Your task to perform on an android device: delete the emails in spam in the gmail app Image 0: 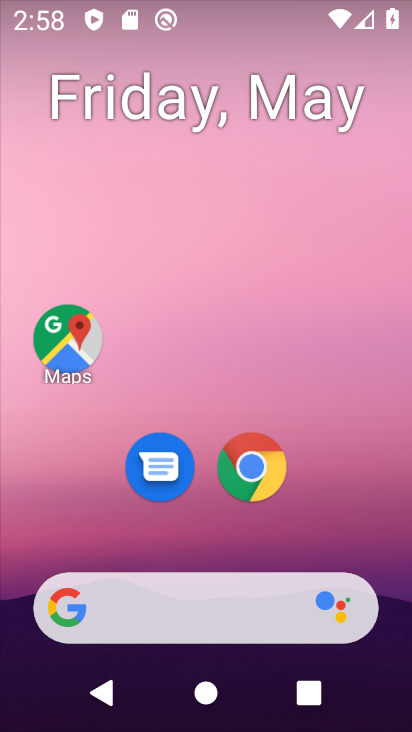
Step 0: drag from (324, 490) to (367, 5)
Your task to perform on an android device: delete the emails in spam in the gmail app Image 1: 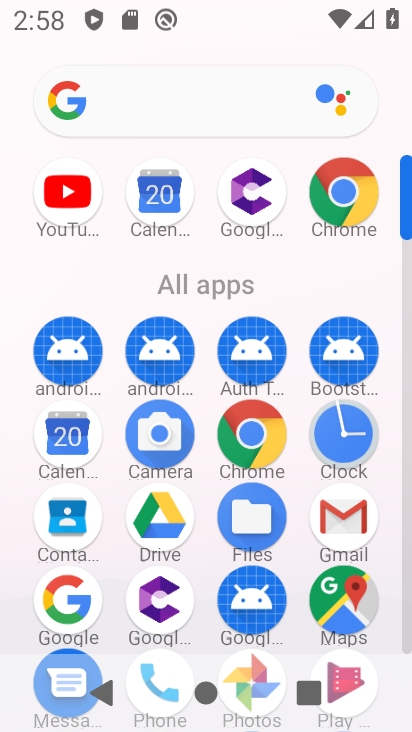
Step 1: click (362, 521)
Your task to perform on an android device: delete the emails in spam in the gmail app Image 2: 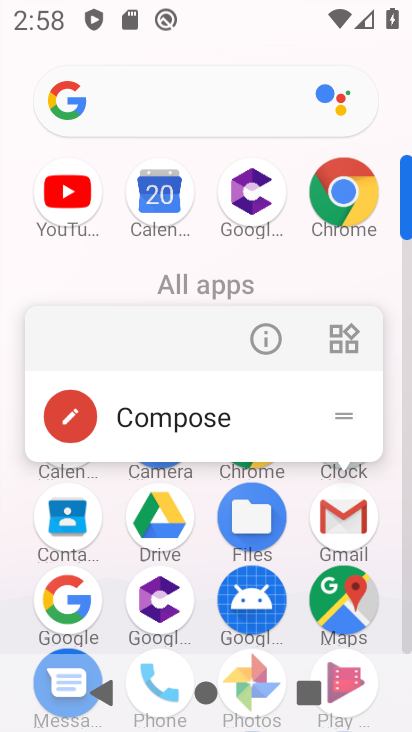
Step 2: click (362, 521)
Your task to perform on an android device: delete the emails in spam in the gmail app Image 3: 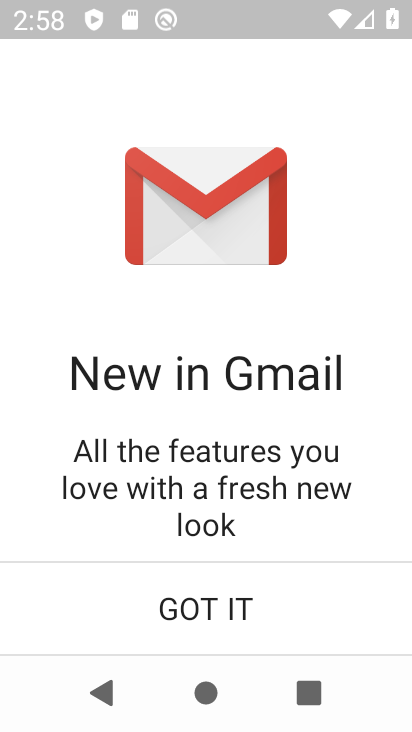
Step 3: click (206, 597)
Your task to perform on an android device: delete the emails in spam in the gmail app Image 4: 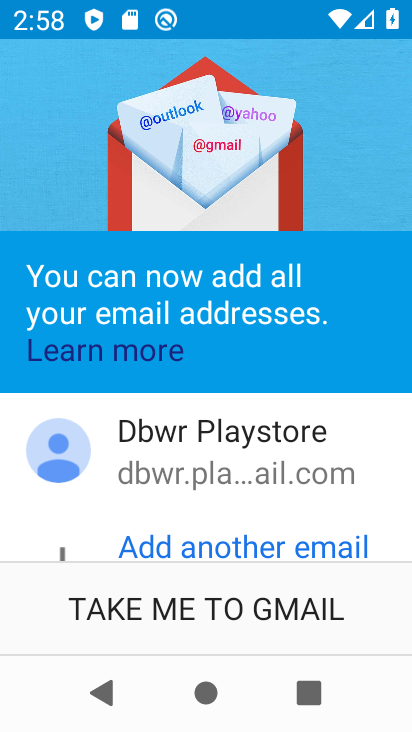
Step 4: click (206, 596)
Your task to perform on an android device: delete the emails in spam in the gmail app Image 5: 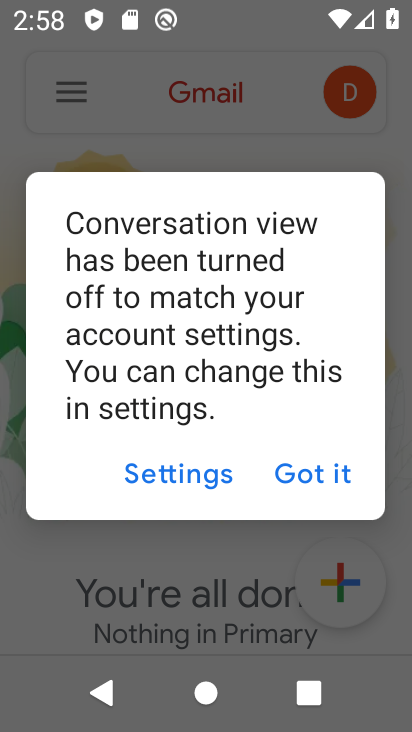
Step 5: click (295, 471)
Your task to perform on an android device: delete the emails in spam in the gmail app Image 6: 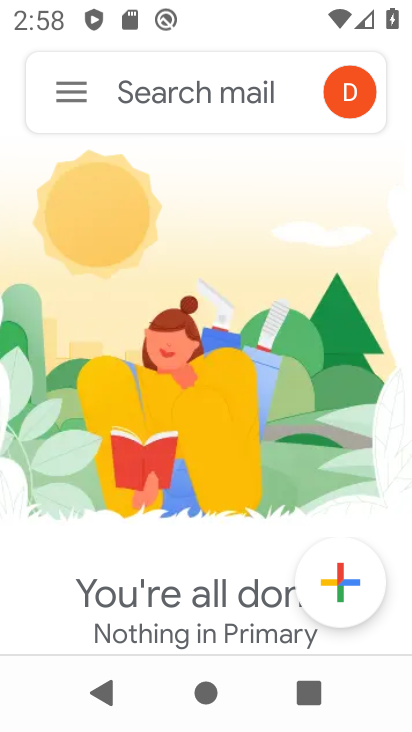
Step 6: click (69, 91)
Your task to perform on an android device: delete the emails in spam in the gmail app Image 7: 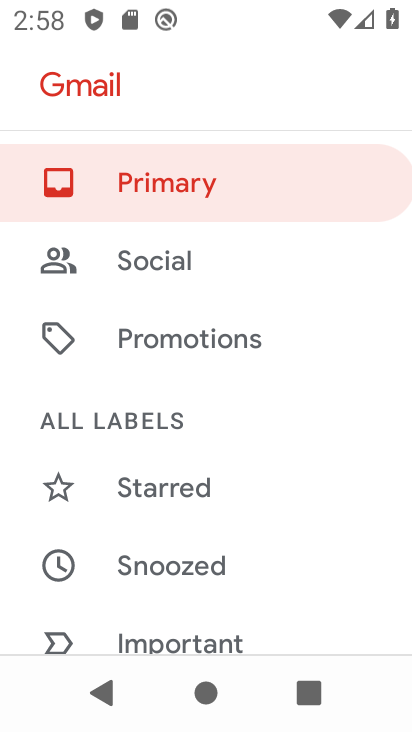
Step 7: drag from (192, 524) to (208, 192)
Your task to perform on an android device: delete the emails in spam in the gmail app Image 8: 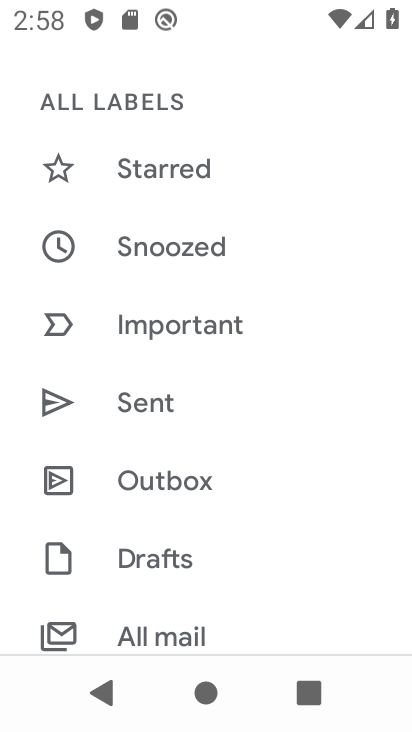
Step 8: drag from (201, 557) to (191, 230)
Your task to perform on an android device: delete the emails in spam in the gmail app Image 9: 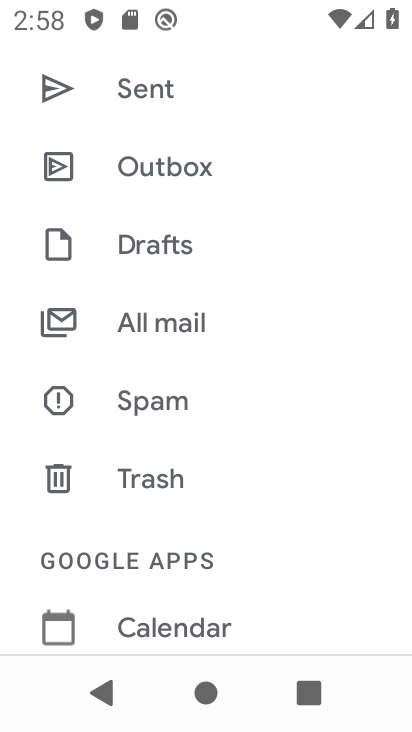
Step 9: drag from (182, 211) to (254, 438)
Your task to perform on an android device: delete the emails in spam in the gmail app Image 10: 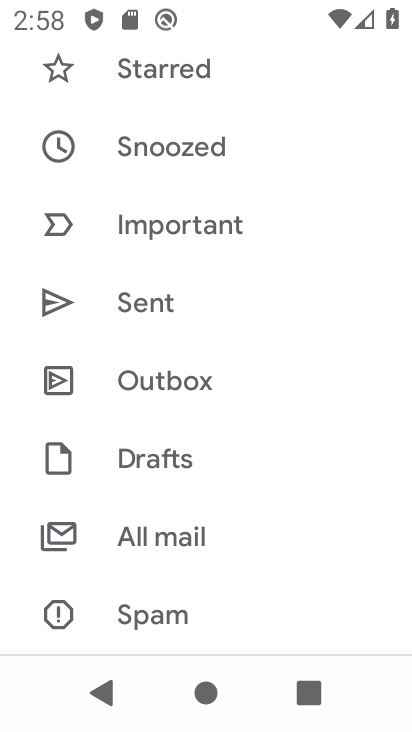
Step 10: drag from (171, 134) to (261, 499)
Your task to perform on an android device: delete the emails in spam in the gmail app Image 11: 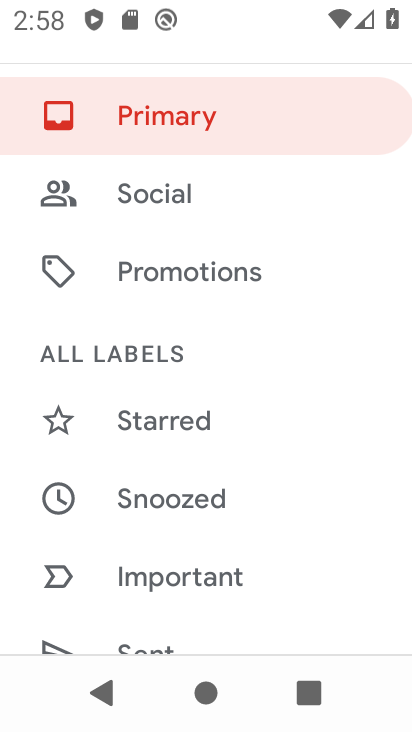
Step 11: drag from (227, 115) to (296, 512)
Your task to perform on an android device: delete the emails in spam in the gmail app Image 12: 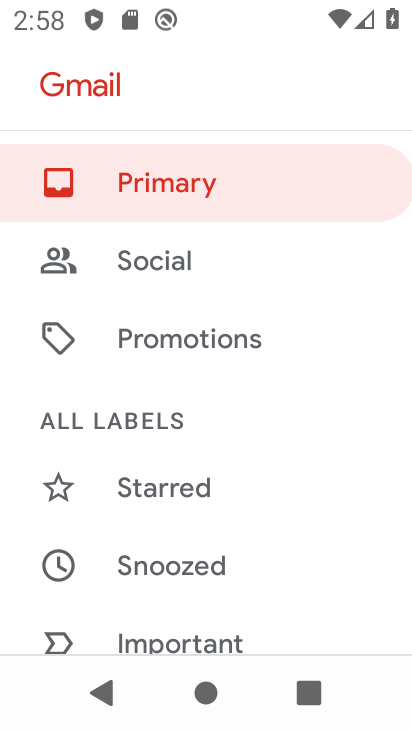
Step 12: drag from (283, 544) to (247, 201)
Your task to perform on an android device: delete the emails in spam in the gmail app Image 13: 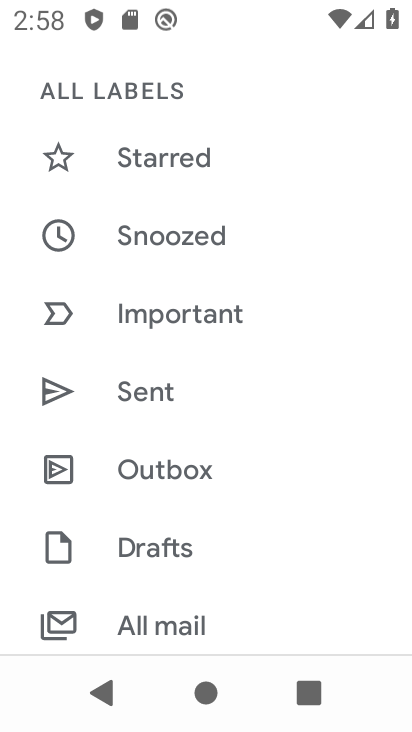
Step 13: drag from (222, 527) to (163, 164)
Your task to perform on an android device: delete the emails in spam in the gmail app Image 14: 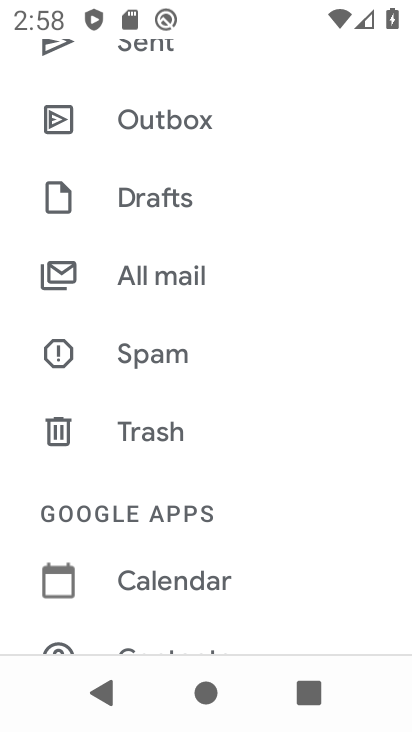
Step 14: drag from (196, 576) to (154, 275)
Your task to perform on an android device: delete the emails in spam in the gmail app Image 15: 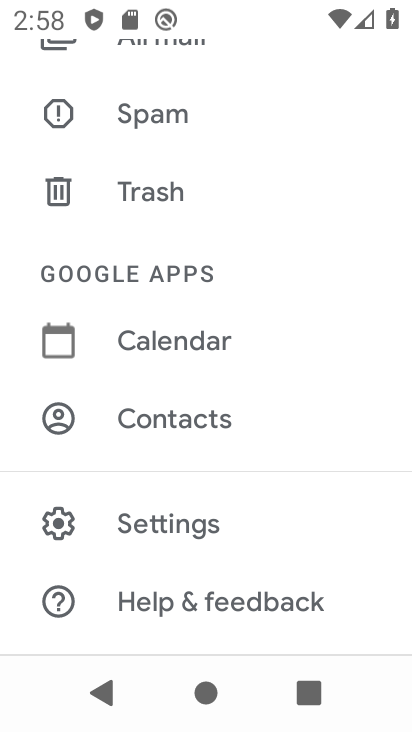
Step 15: click (134, 123)
Your task to perform on an android device: delete the emails in spam in the gmail app Image 16: 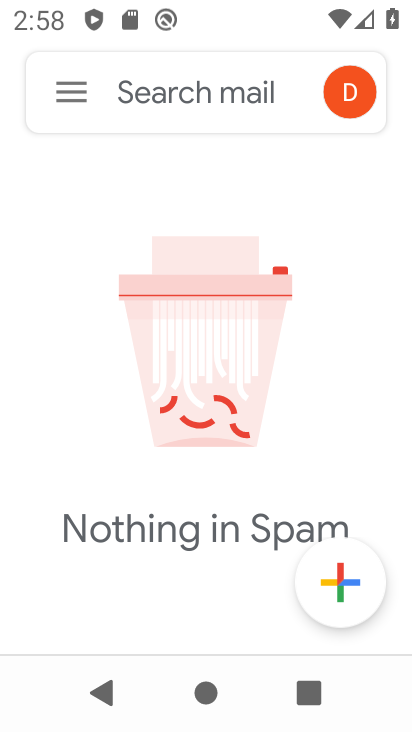
Step 16: task complete